Your task to perform on an android device: Go to settings Image 0: 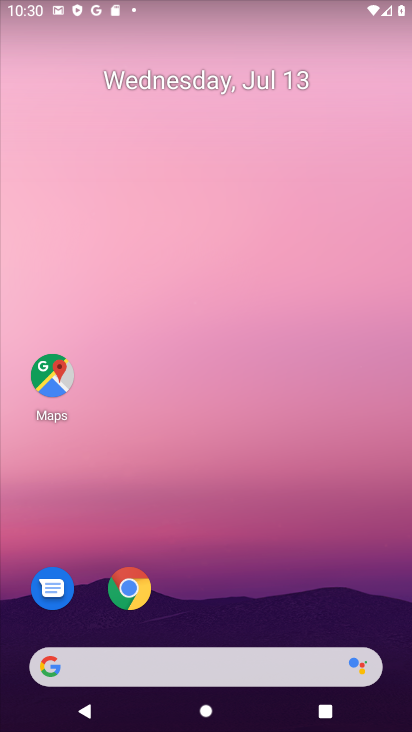
Step 0: drag from (227, 637) to (334, 63)
Your task to perform on an android device: Go to settings Image 1: 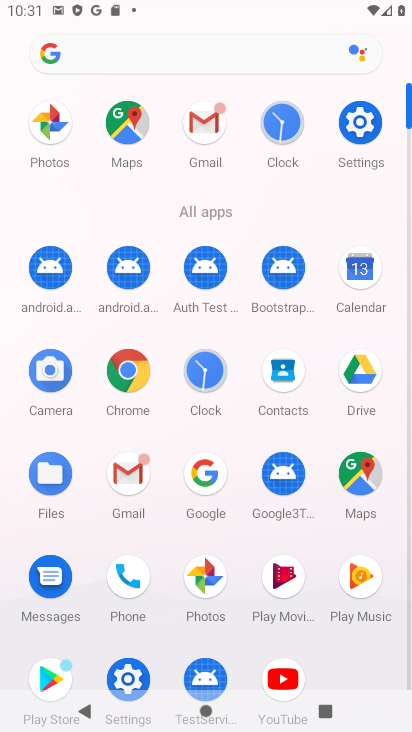
Step 1: click (125, 677)
Your task to perform on an android device: Go to settings Image 2: 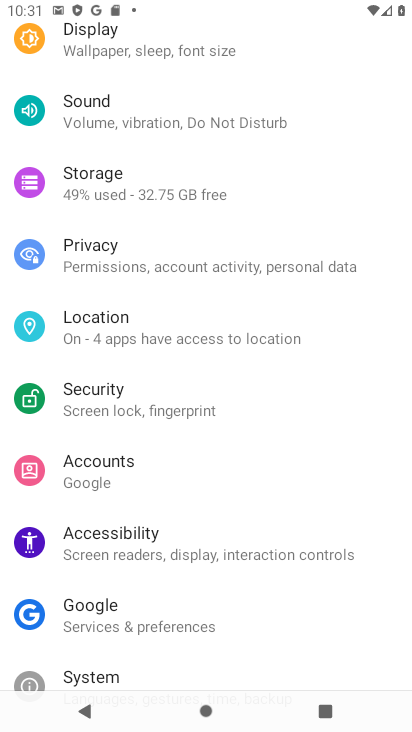
Step 2: task complete